Your task to perform on an android device: Open the Play Movies app and select the watchlist tab. Image 0: 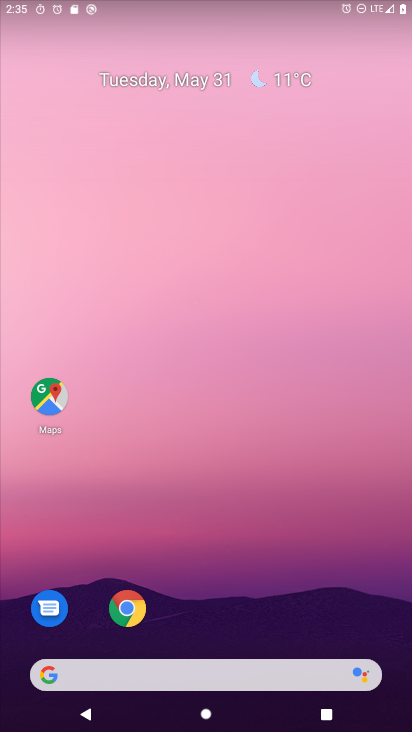
Step 0: drag from (344, 634) to (361, 15)
Your task to perform on an android device: Open the Play Movies app and select the watchlist tab. Image 1: 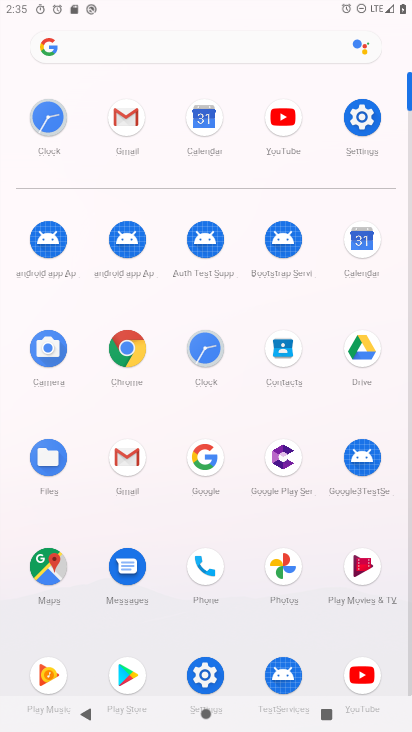
Step 1: click (362, 572)
Your task to perform on an android device: Open the Play Movies app and select the watchlist tab. Image 2: 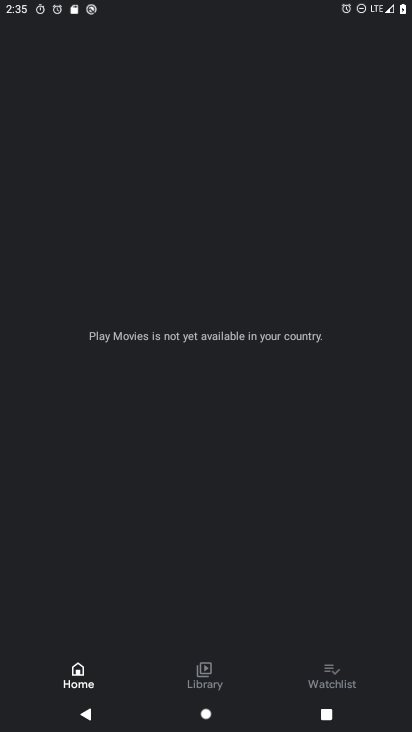
Step 2: click (324, 674)
Your task to perform on an android device: Open the Play Movies app and select the watchlist tab. Image 3: 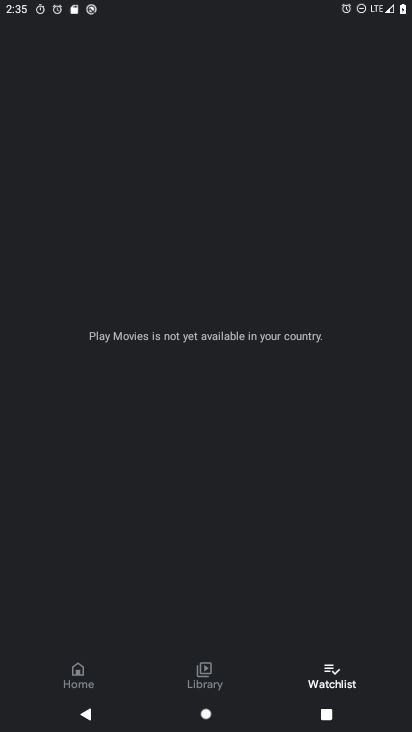
Step 3: task complete